Your task to perform on an android device: turn pop-ups off in chrome Image 0: 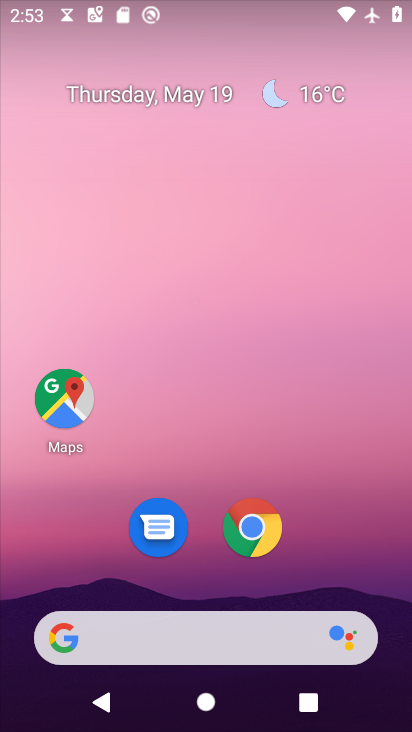
Step 0: click (269, 532)
Your task to perform on an android device: turn pop-ups off in chrome Image 1: 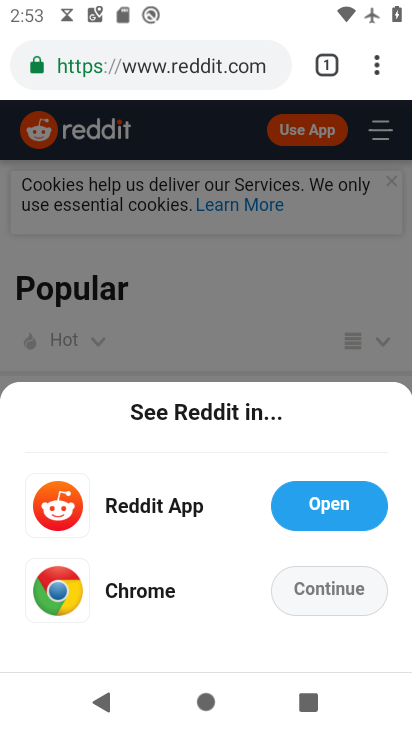
Step 1: click (371, 67)
Your task to perform on an android device: turn pop-ups off in chrome Image 2: 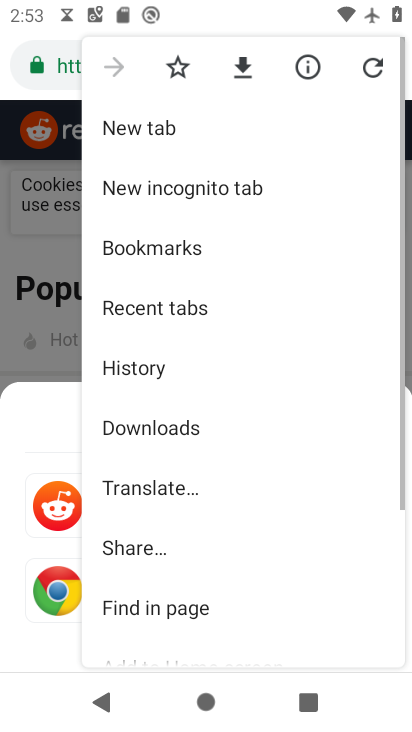
Step 2: drag from (201, 557) to (199, 152)
Your task to perform on an android device: turn pop-ups off in chrome Image 3: 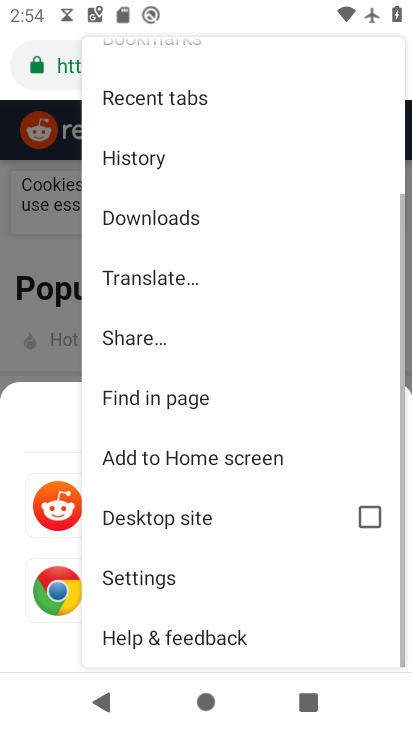
Step 3: click (179, 563)
Your task to perform on an android device: turn pop-ups off in chrome Image 4: 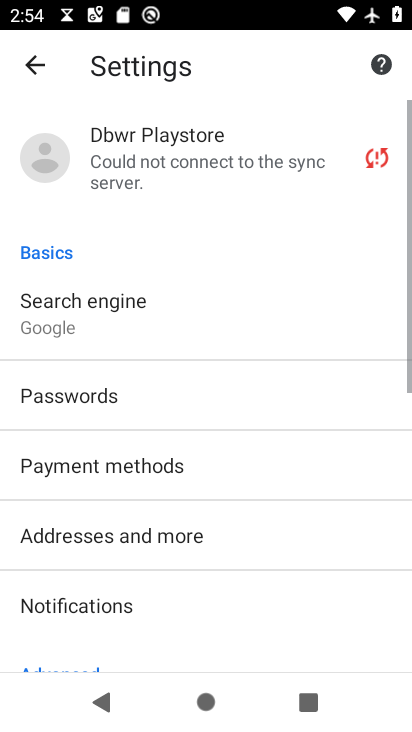
Step 4: drag from (240, 580) to (234, 227)
Your task to perform on an android device: turn pop-ups off in chrome Image 5: 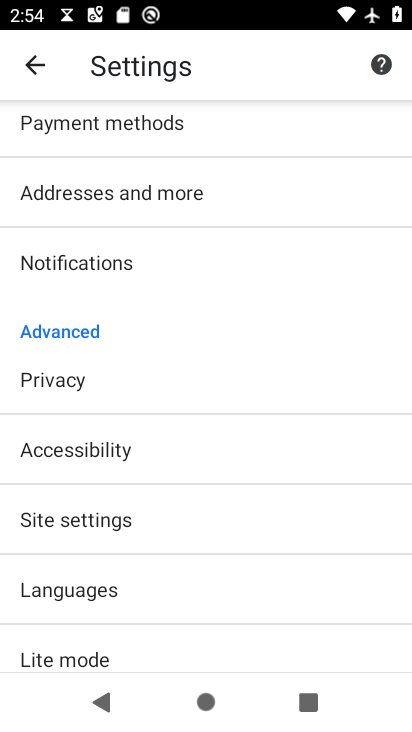
Step 5: click (136, 525)
Your task to perform on an android device: turn pop-ups off in chrome Image 6: 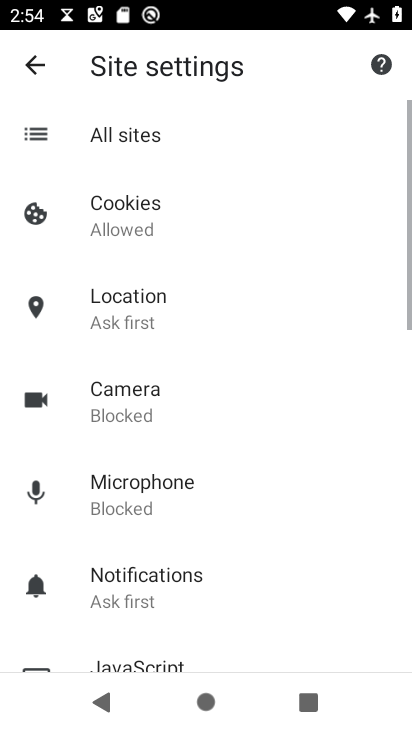
Step 6: drag from (234, 593) to (229, 203)
Your task to perform on an android device: turn pop-ups off in chrome Image 7: 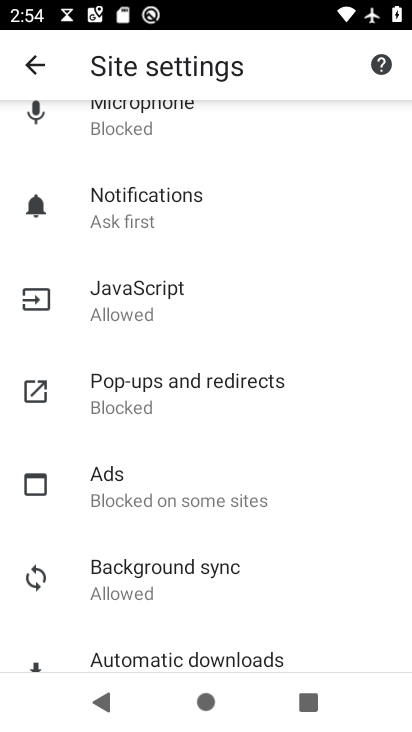
Step 7: click (192, 412)
Your task to perform on an android device: turn pop-ups off in chrome Image 8: 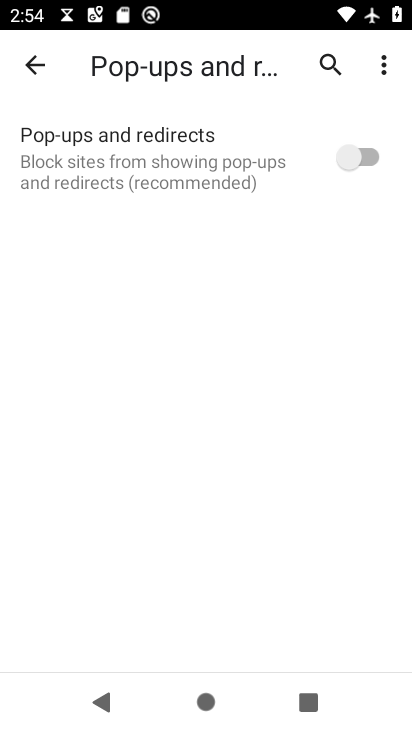
Step 8: click (347, 151)
Your task to perform on an android device: turn pop-ups off in chrome Image 9: 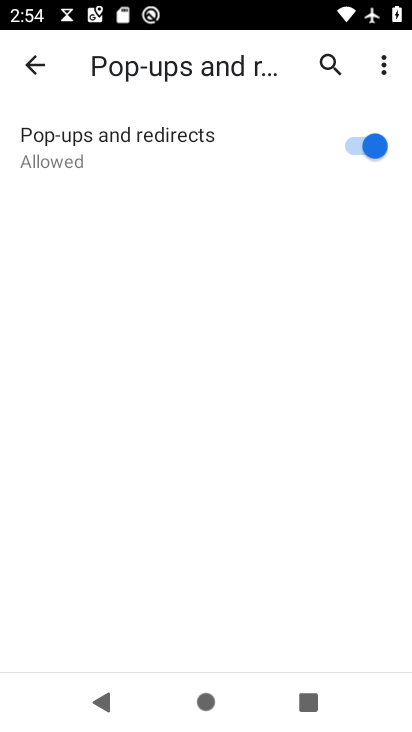
Step 9: click (347, 151)
Your task to perform on an android device: turn pop-ups off in chrome Image 10: 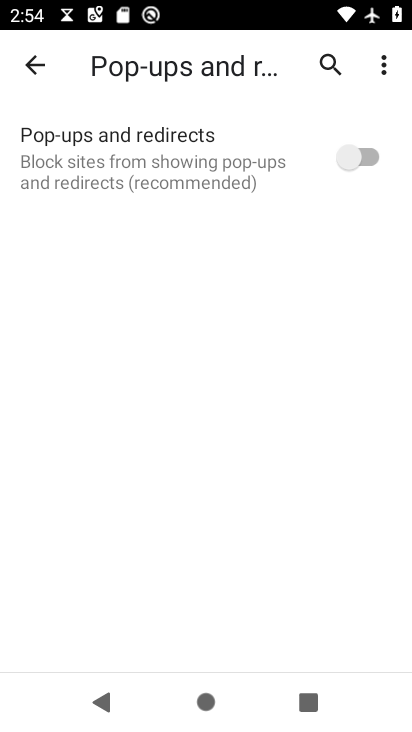
Step 10: task complete